Your task to perform on an android device: Check the news Image 0: 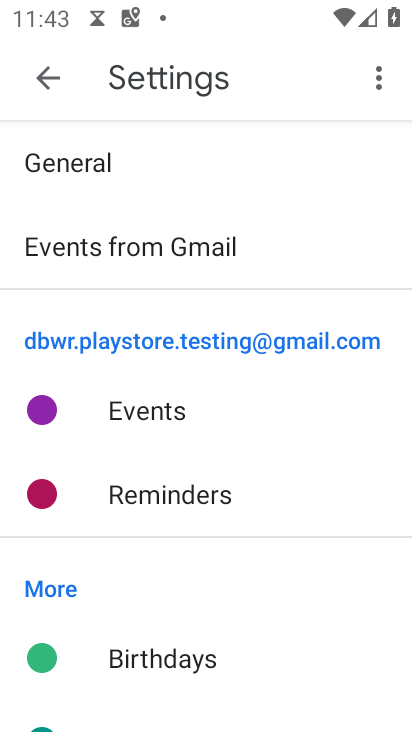
Step 0: press home button
Your task to perform on an android device: Check the news Image 1: 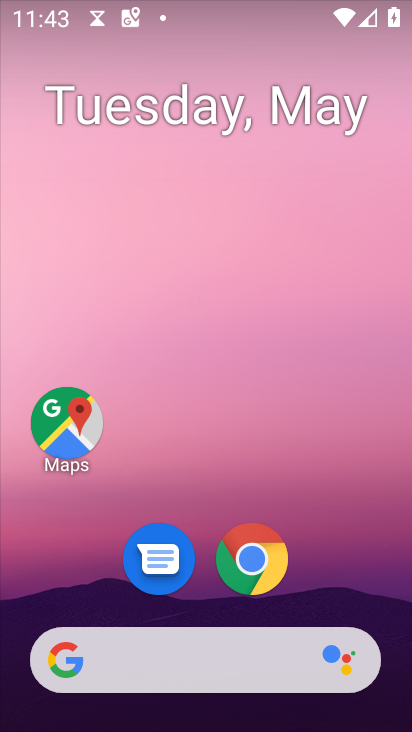
Step 1: drag from (354, 548) to (351, 0)
Your task to perform on an android device: Check the news Image 2: 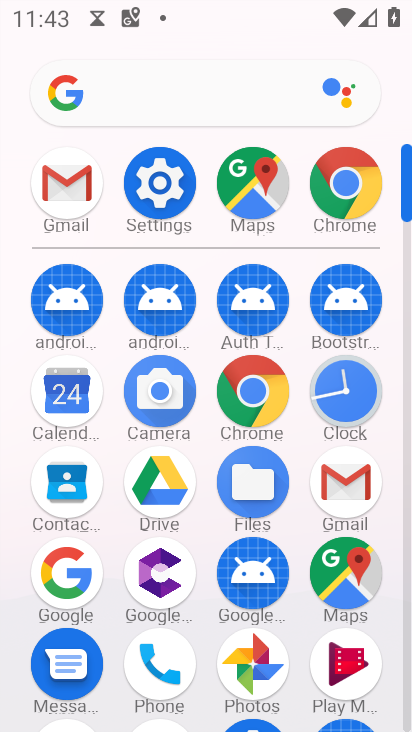
Step 2: click (340, 203)
Your task to perform on an android device: Check the news Image 3: 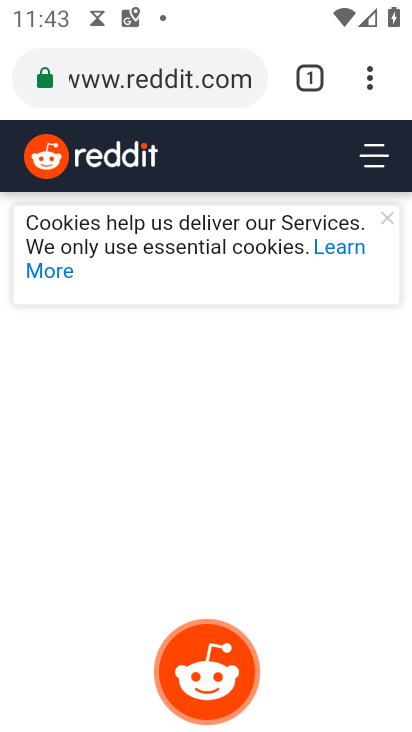
Step 3: task complete